Your task to perform on an android device: toggle translation in the chrome app Image 0: 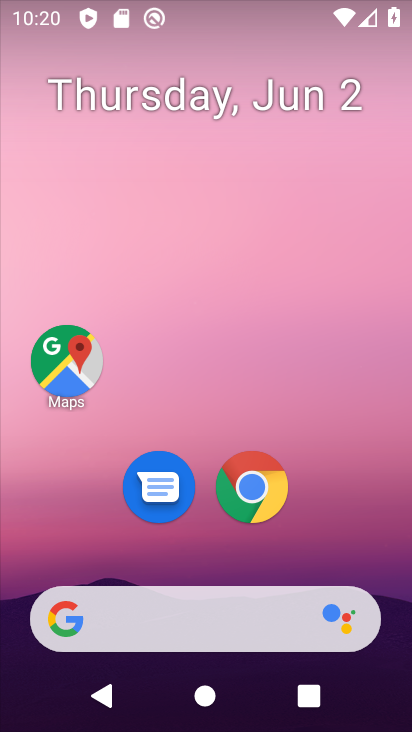
Step 0: click (269, 479)
Your task to perform on an android device: toggle translation in the chrome app Image 1: 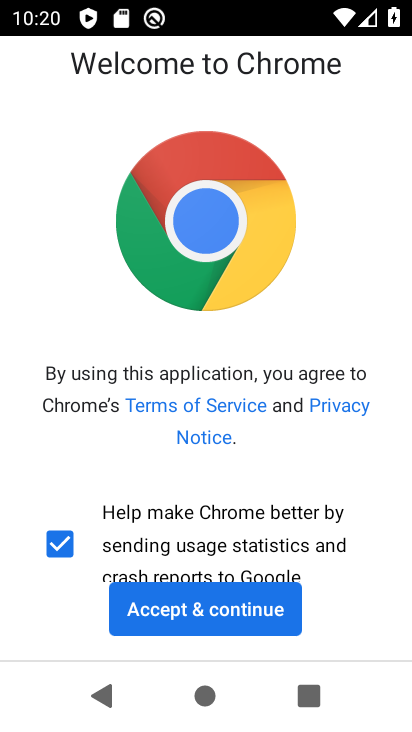
Step 1: click (196, 608)
Your task to perform on an android device: toggle translation in the chrome app Image 2: 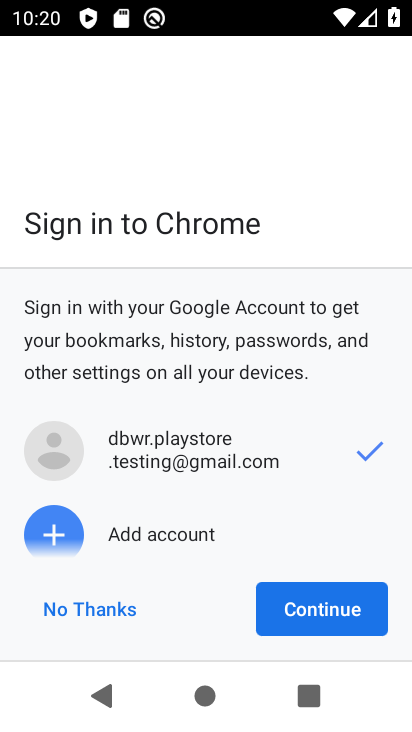
Step 2: click (319, 602)
Your task to perform on an android device: toggle translation in the chrome app Image 3: 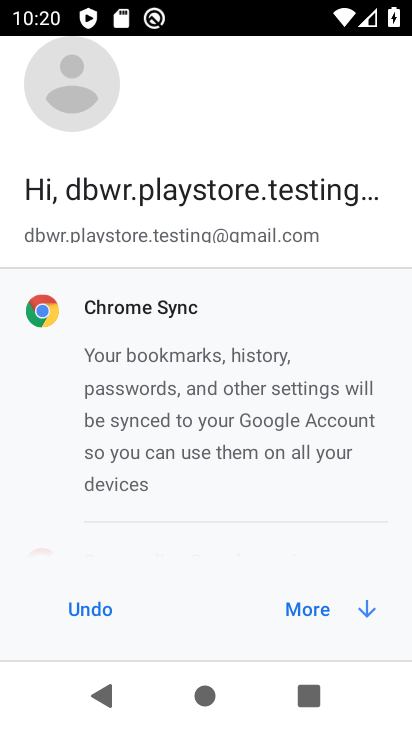
Step 3: click (347, 596)
Your task to perform on an android device: toggle translation in the chrome app Image 4: 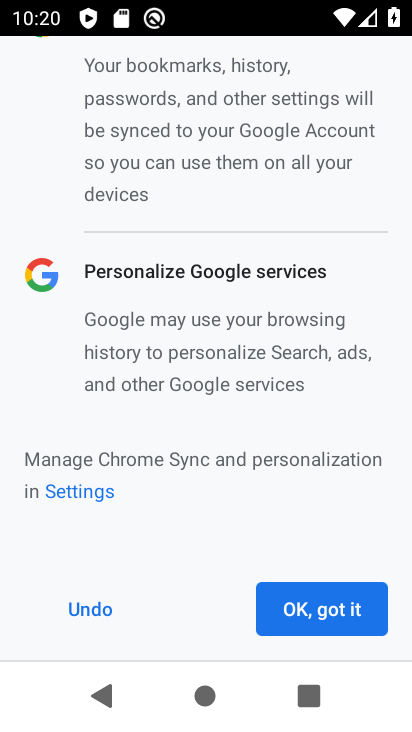
Step 4: click (294, 604)
Your task to perform on an android device: toggle translation in the chrome app Image 5: 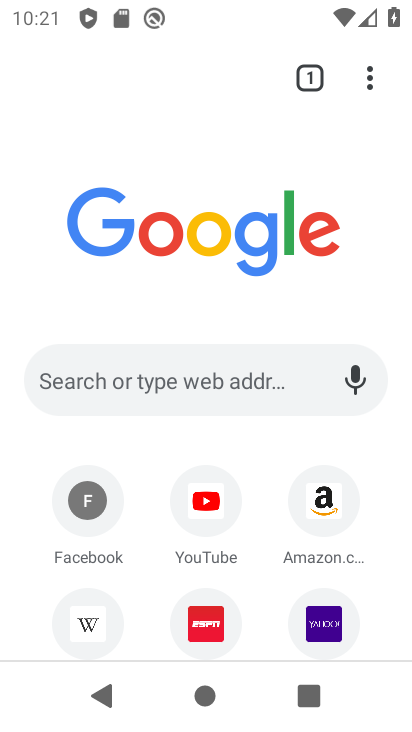
Step 5: task complete